Your task to perform on an android device: See recent photos Image 0: 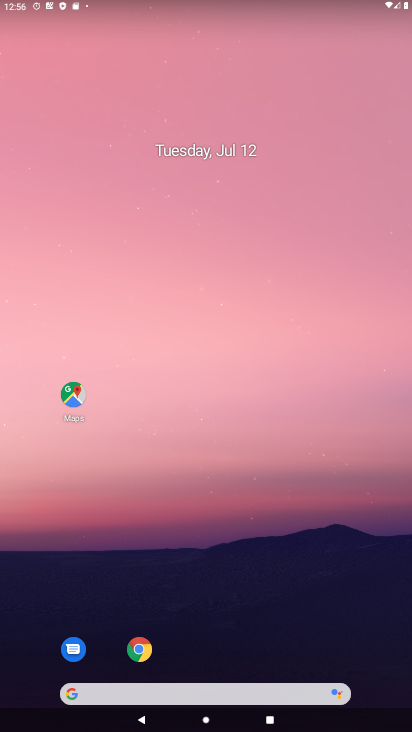
Step 0: drag from (381, 658) to (202, 69)
Your task to perform on an android device: See recent photos Image 1: 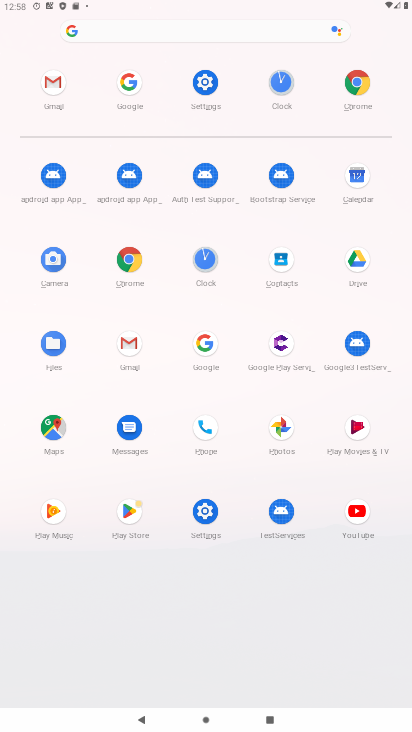
Step 1: click (274, 425)
Your task to perform on an android device: See recent photos Image 2: 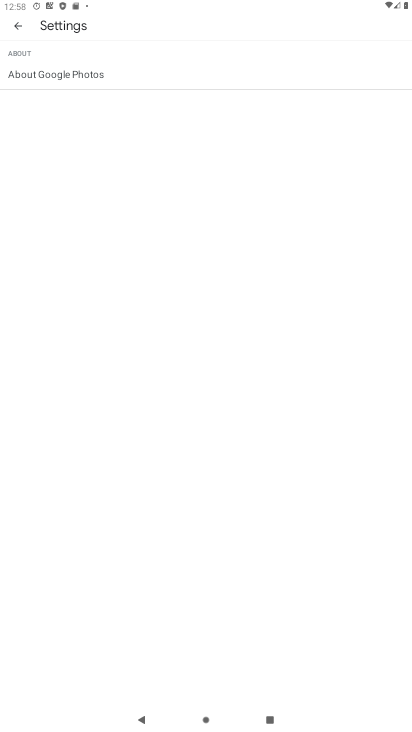
Step 2: task complete